Your task to perform on an android device: Open Youtube and go to the subscriptions tab Image 0: 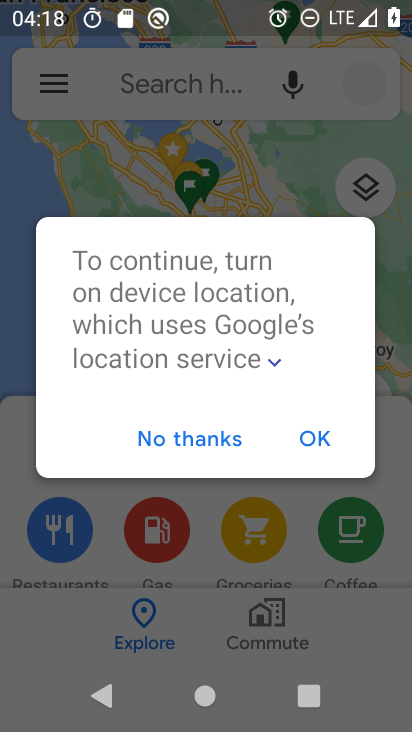
Step 0: press home button
Your task to perform on an android device: Open Youtube and go to the subscriptions tab Image 1: 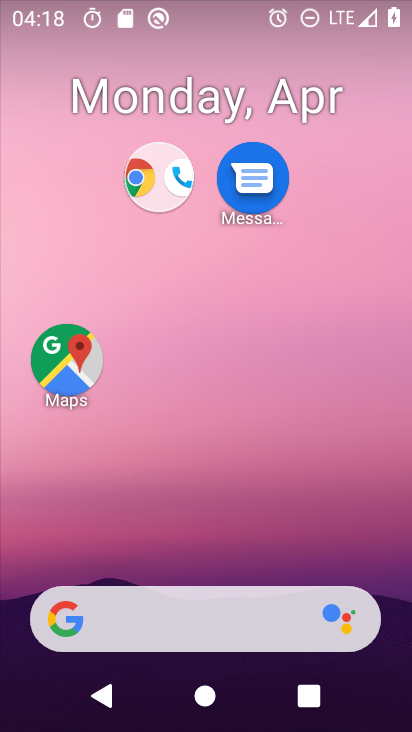
Step 1: drag from (357, 565) to (278, 0)
Your task to perform on an android device: Open Youtube and go to the subscriptions tab Image 2: 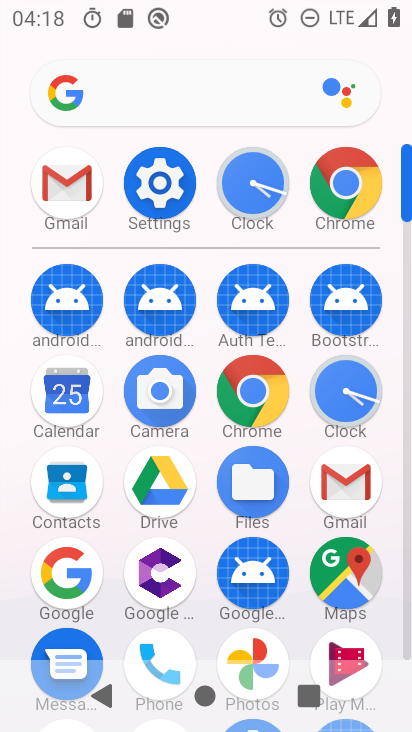
Step 2: drag from (288, 637) to (277, 100)
Your task to perform on an android device: Open Youtube and go to the subscriptions tab Image 3: 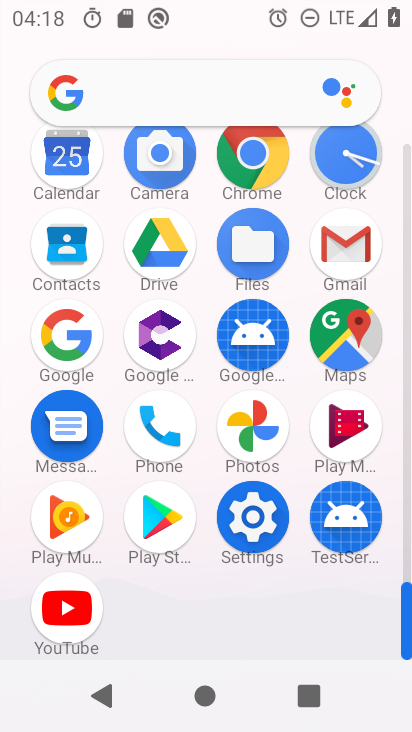
Step 3: click (78, 611)
Your task to perform on an android device: Open Youtube and go to the subscriptions tab Image 4: 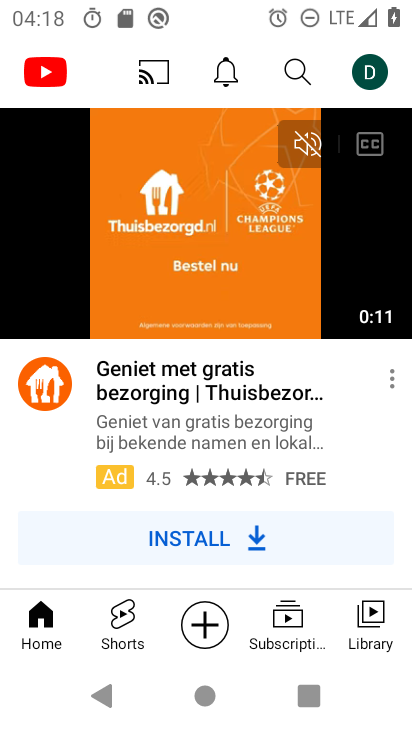
Step 4: click (304, 621)
Your task to perform on an android device: Open Youtube and go to the subscriptions tab Image 5: 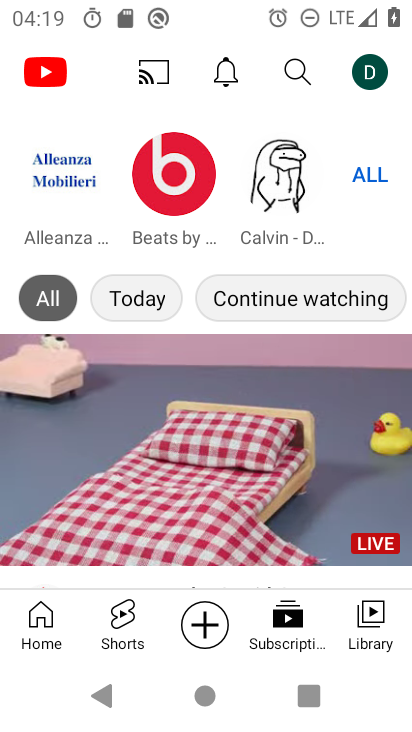
Step 5: task complete